Your task to perform on an android device: Open the stopwatch Image 0: 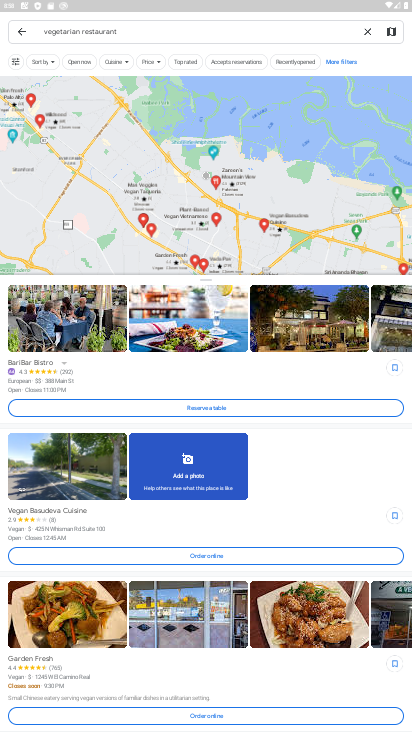
Step 0: press home button
Your task to perform on an android device: Open the stopwatch Image 1: 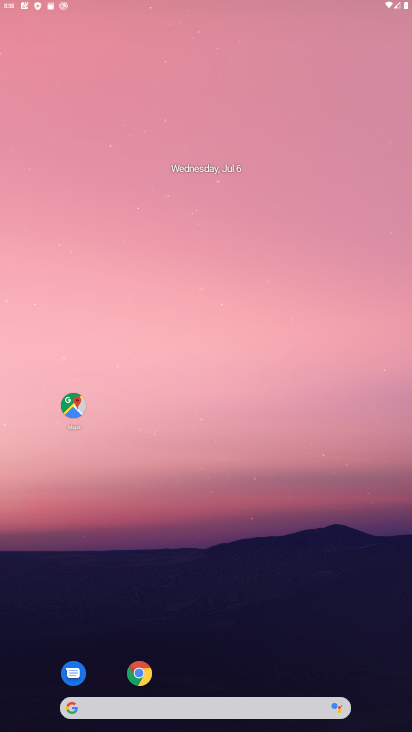
Step 1: drag from (233, 626) to (224, 408)
Your task to perform on an android device: Open the stopwatch Image 2: 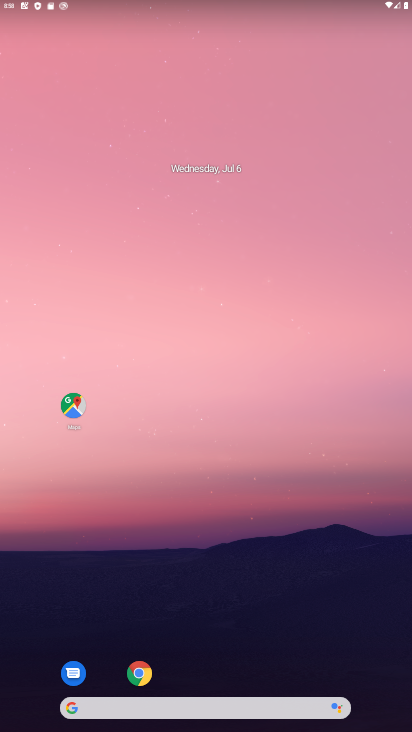
Step 2: drag from (235, 607) to (240, 283)
Your task to perform on an android device: Open the stopwatch Image 3: 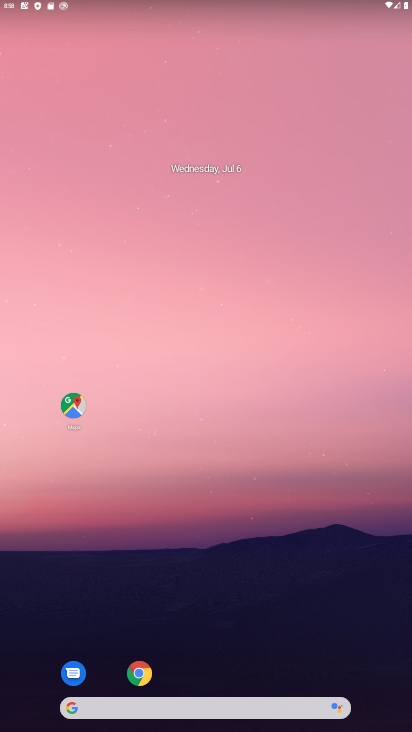
Step 3: drag from (242, 644) to (223, 234)
Your task to perform on an android device: Open the stopwatch Image 4: 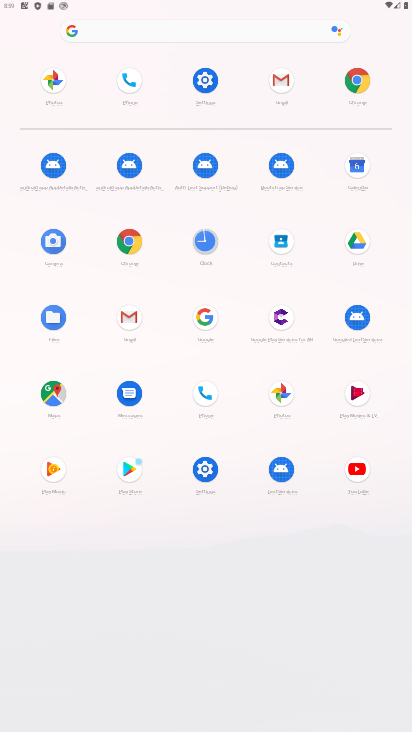
Step 4: click (200, 234)
Your task to perform on an android device: Open the stopwatch Image 5: 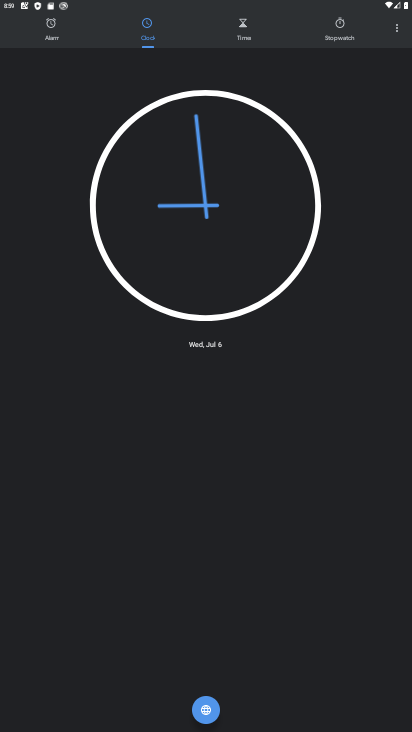
Step 5: click (331, 34)
Your task to perform on an android device: Open the stopwatch Image 6: 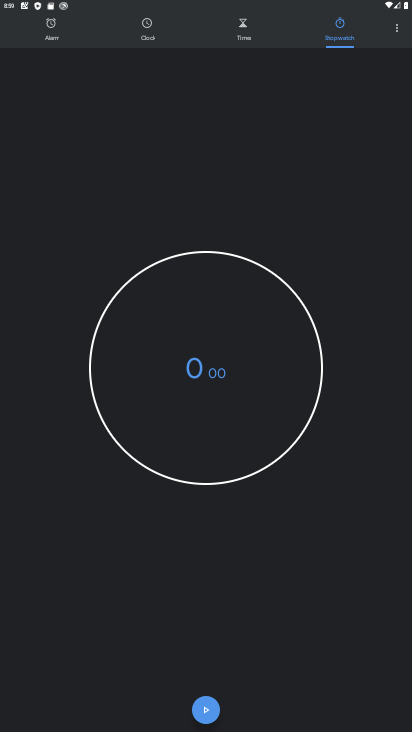
Step 6: task complete